Your task to perform on an android device: toggle show notifications on the lock screen Image 0: 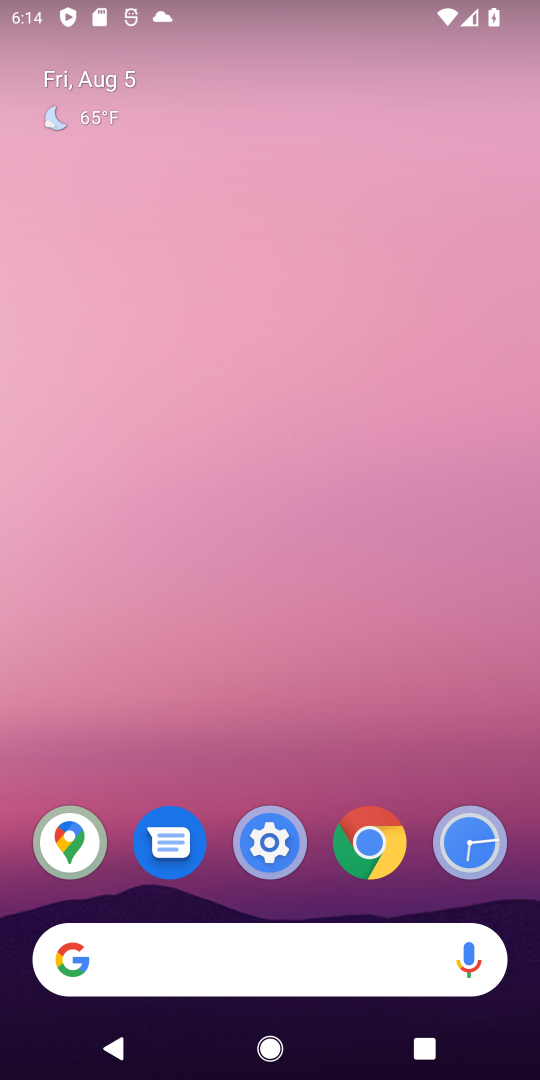
Step 0: drag from (64, 906) to (334, 186)
Your task to perform on an android device: toggle show notifications on the lock screen Image 1: 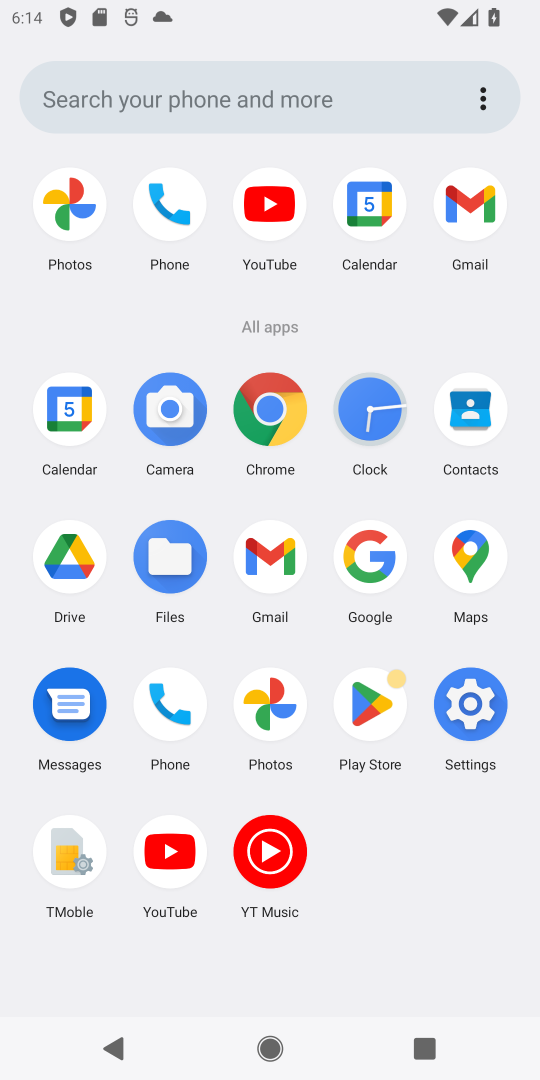
Step 1: click (493, 688)
Your task to perform on an android device: toggle show notifications on the lock screen Image 2: 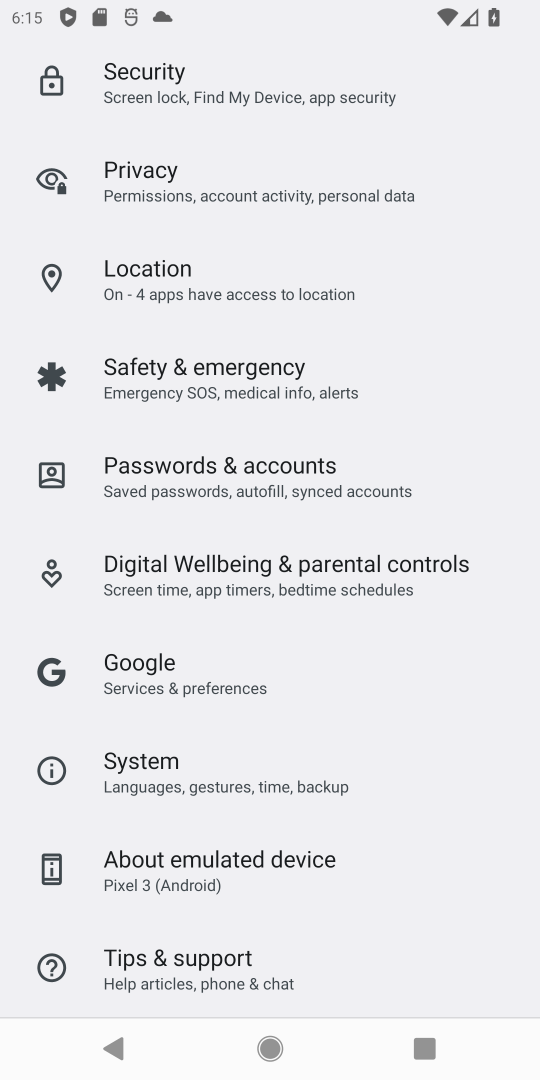
Step 2: drag from (194, 228) to (44, 875)
Your task to perform on an android device: toggle show notifications on the lock screen Image 3: 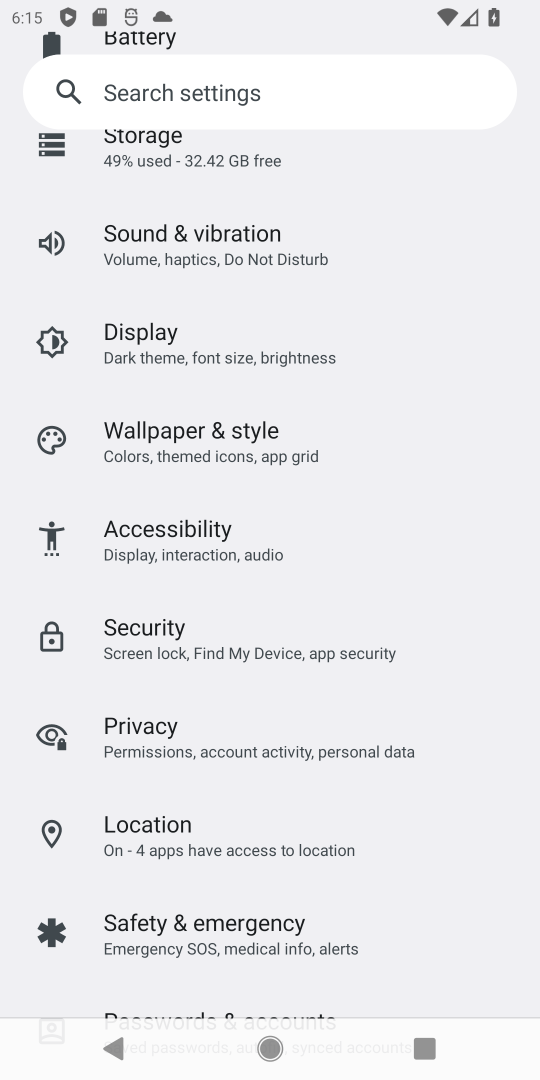
Step 3: drag from (243, 218) to (47, 976)
Your task to perform on an android device: toggle show notifications on the lock screen Image 4: 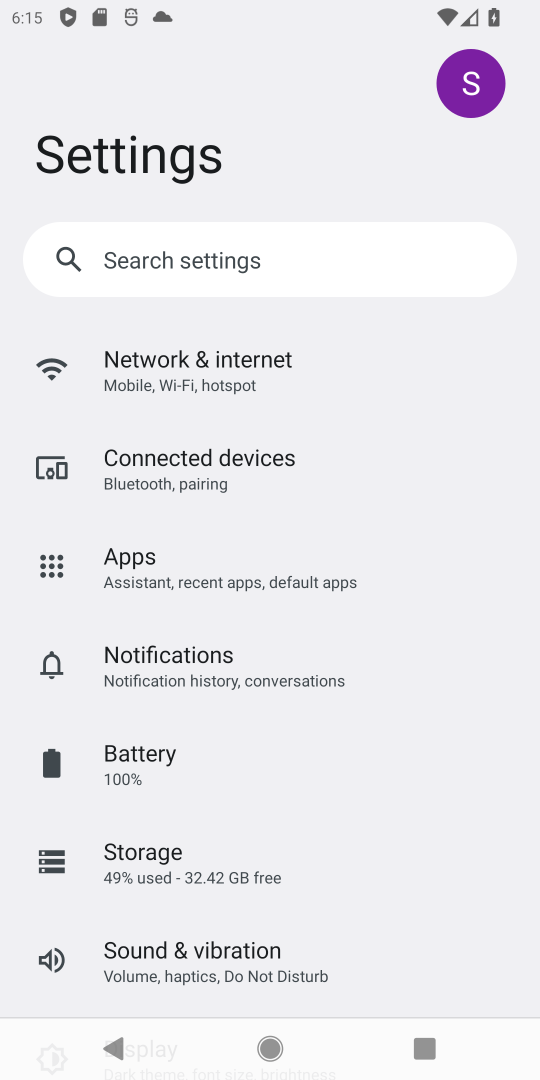
Step 4: click (154, 673)
Your task to perform on an android device: toggle show notifications on the lock screen Image 5: 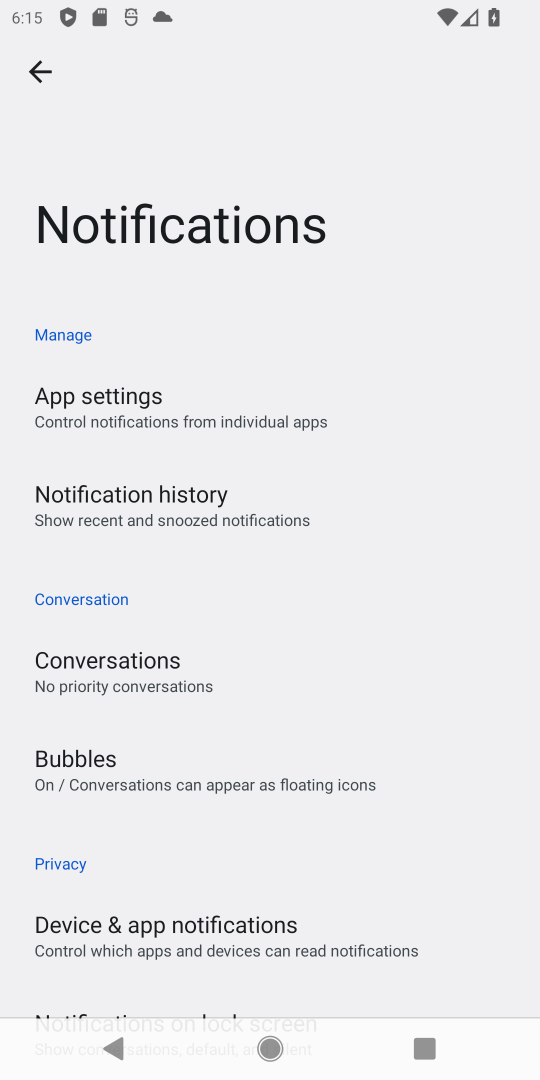
Step 5: drag from (148, 929) to (318, 292)
Your task to perform on an android device: toggle show notifications on the lock screen Image 6: 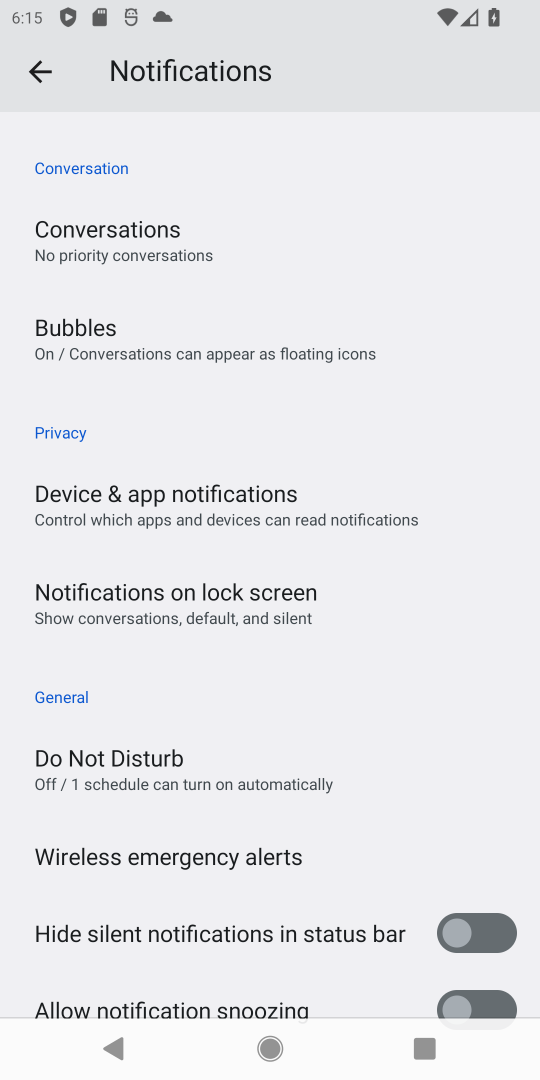
Step 6: click (257, 604)
Your task to perform on an android device: toggle show notifications on the lock screen Image 7: 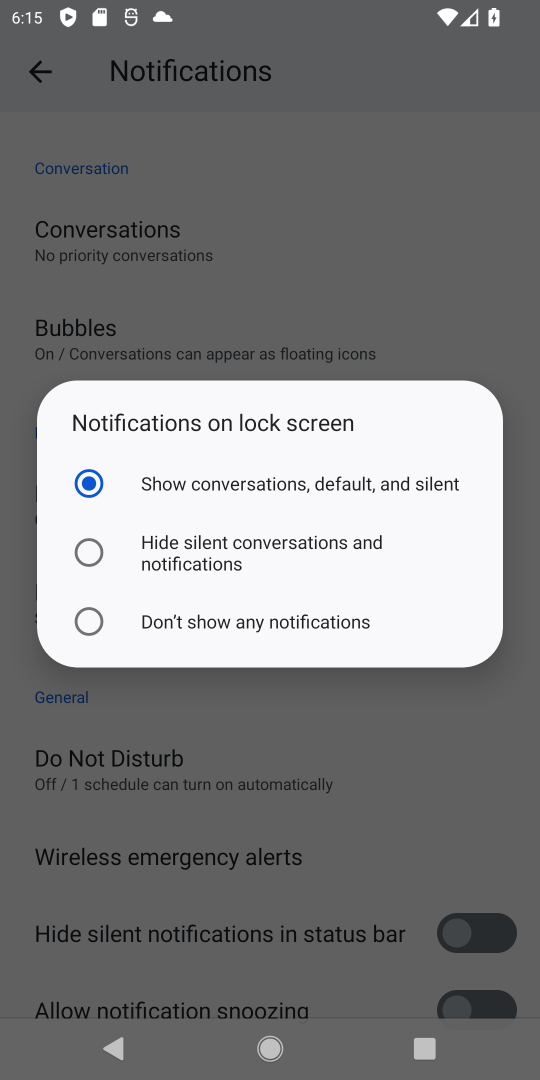
Step 7: click (189, 638)
Your task to perform on an android device: toggle show notifications on the lock screen Image 8: 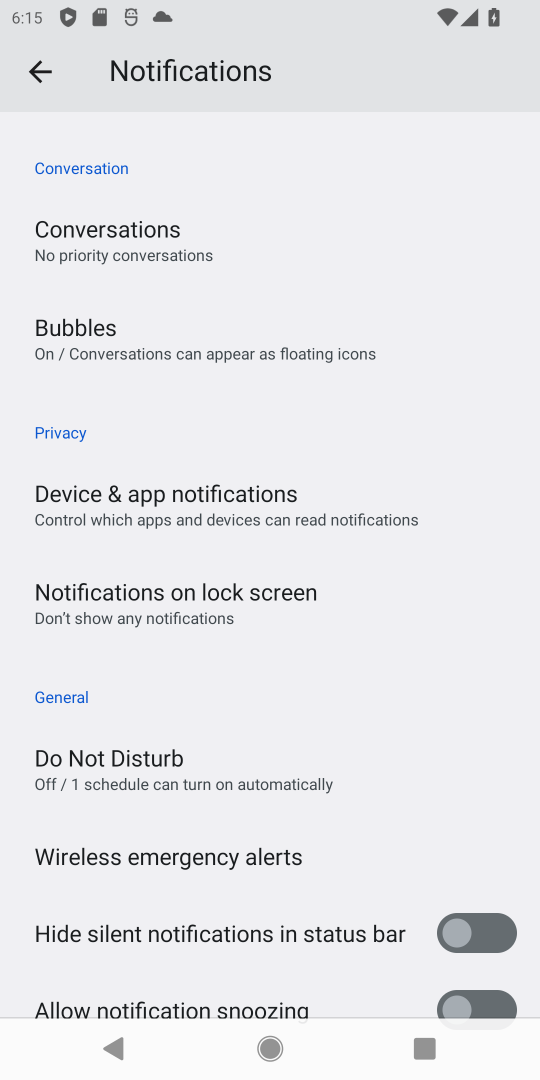
Step 8: task complete